Your task to perform on an android device: Open the map Image 0: 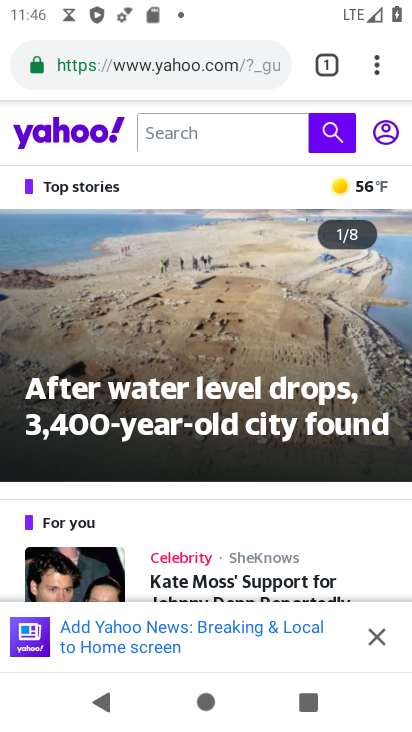
Step 0: press home button
Your task to perform on an android device: Open the map Image 1: 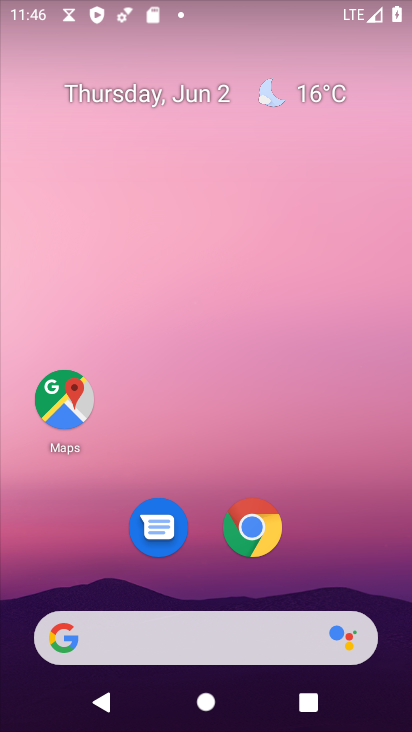
Step 1: click (56, 387)
Your task to perform on an android device: Open the map Image 2: 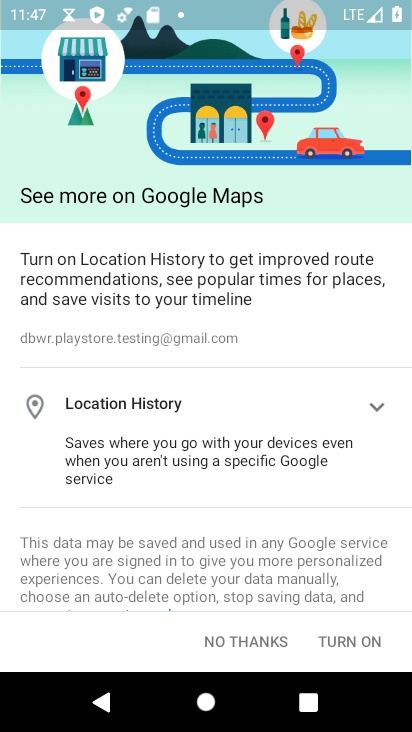
Step 2: task complete